Your task to perform on an android device: see creations saved in the google photos Image 0: 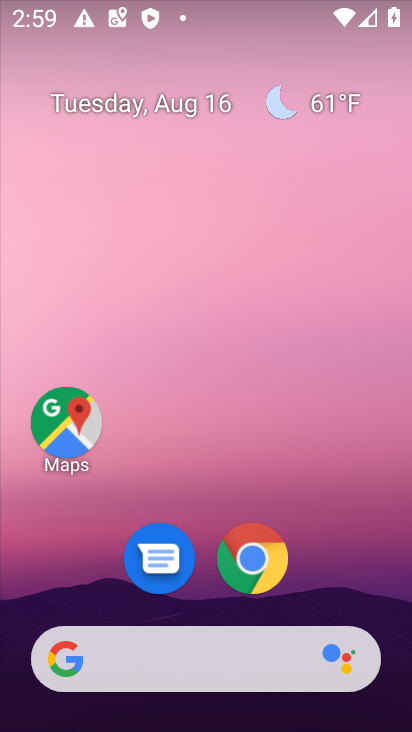
Step 0: drag from (374, 592) to (349, 124)
Your task to perform on an android device: see creations saved in the google photos Image 1: 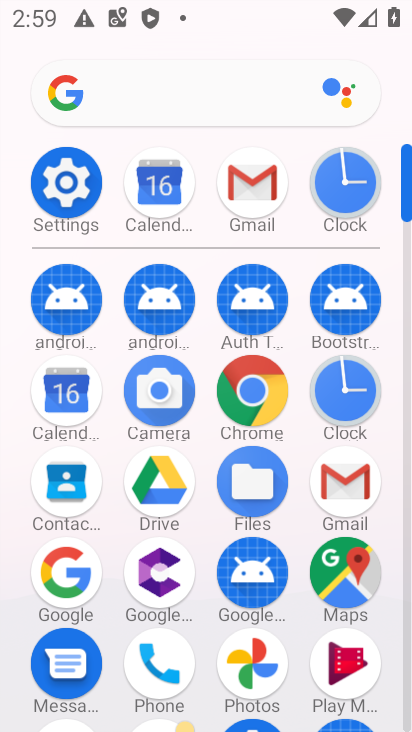
Step 1: click (406, 689)
Your task to perform on an android device: see creations saved in the google photos Image 2: 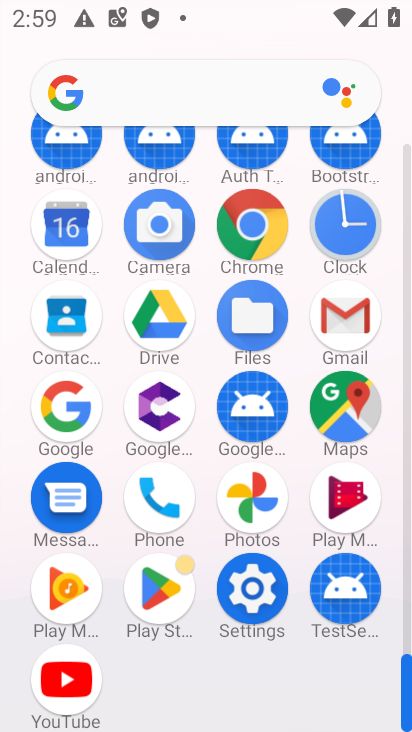
Step 2: click (251, 498)
Your task to perform on an android device: see creations saved in the google photos Image 3: 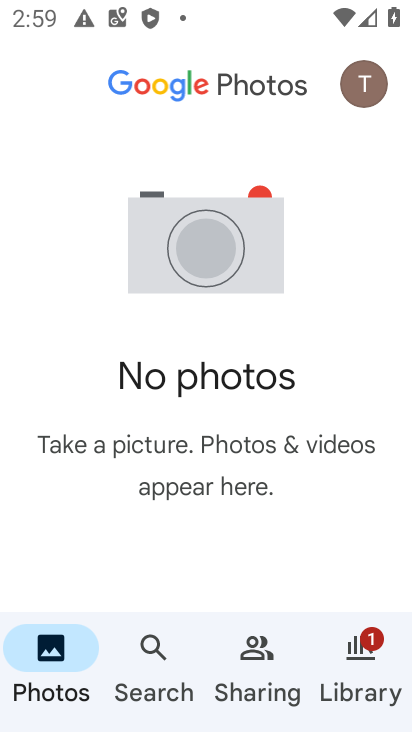
Step 3: task complete